Your task to perform on an android device: Open Google Image 0: 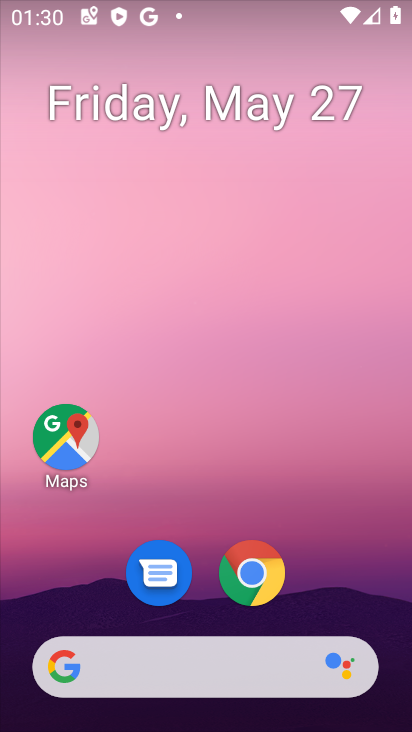
Step 0: drag from (212, 620) to (232, 9)
Your task to perform on an android device: Open Google Image 1: 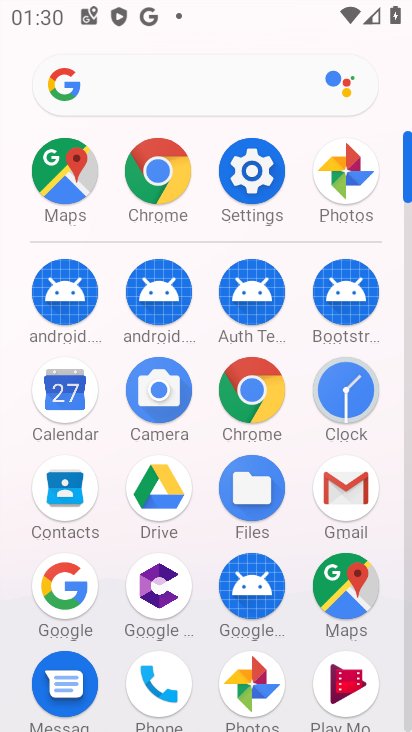
Step 1: drag from (196, 650) to (189, 198)
Your task to perform on an android device: Open Google Image 2: 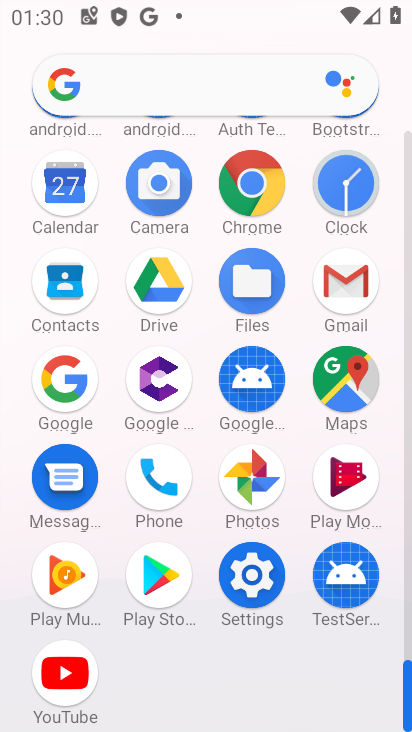
Step 2: click (53, 369)
Your task to perform on an android device: Open Google Image 3: 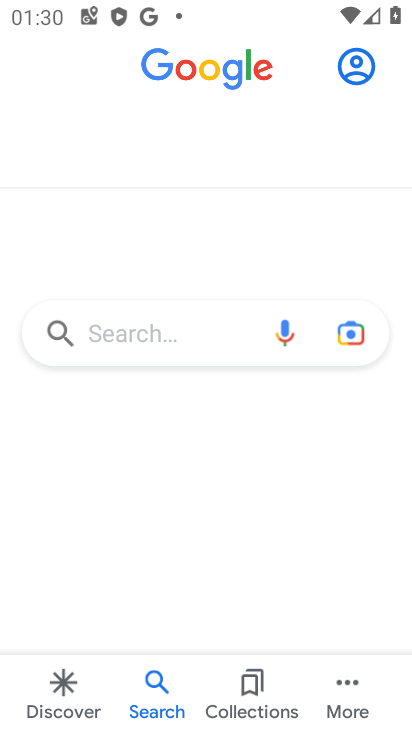
Step 3: task complete